Your task to perform on an android device: Search for sushi restaurants on Maps Image 0: 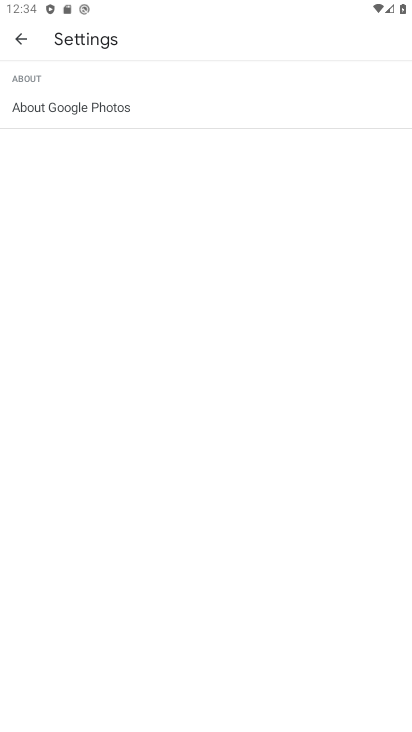
Step 0: click (16, 34)
Your task to perform on an android device: Search for sushi restaurants on Maps Image 1: 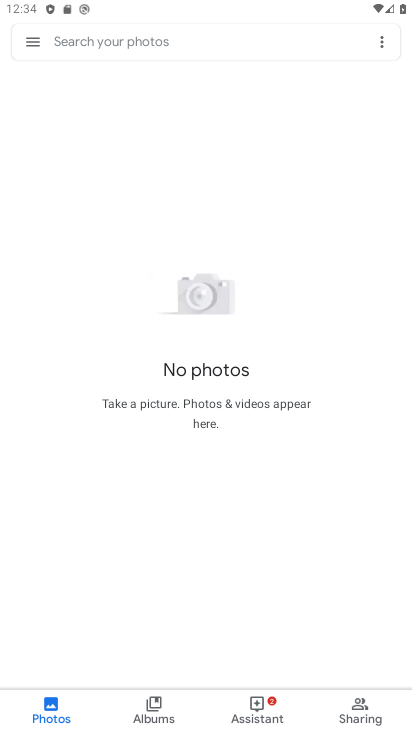
Step 1: press home button
Your task to perform on an android device: Search for sushi restaurants on Maps Image 2: 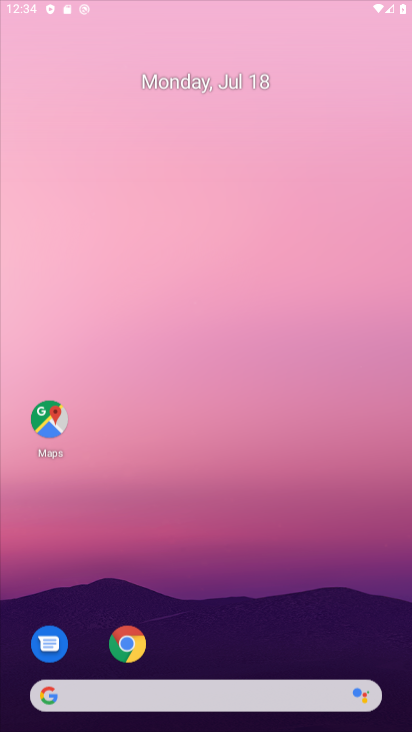
Step 2: drag from (189, 639) to (201, 142)
Your task to perform on an android device: Search for sushi restaurants on Maps Image 3: 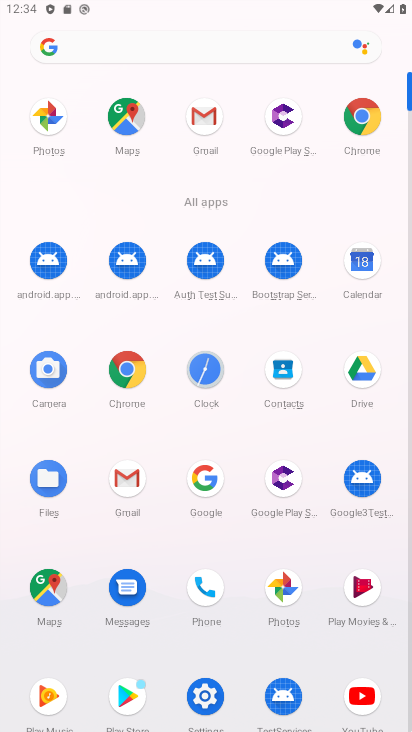
Step 3: click (115, 156)
Your task to perform on an android device: Search for sushi restaurants on Maps Image 4: 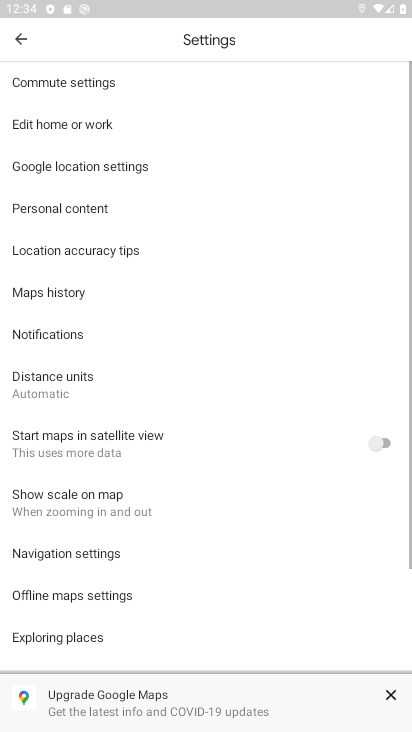
Step 4: click (16, 33)
Your task to perform on an android device: Search for sushi restaurants on Maps Image 5: 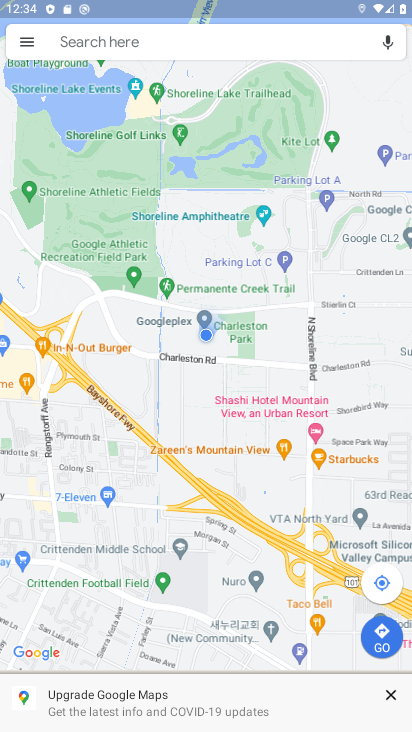
Step 5: click (92, 52)
Your task to perform on an android device: Search for sushi restaurants on Maps Image 6: 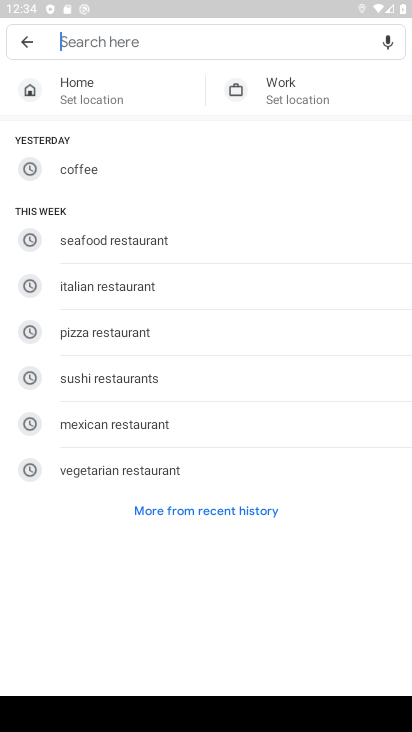
Step 6: type "sushi restaurants"
Your task to perform on an android device: Search for sushi restaurants on Maps Image 7: 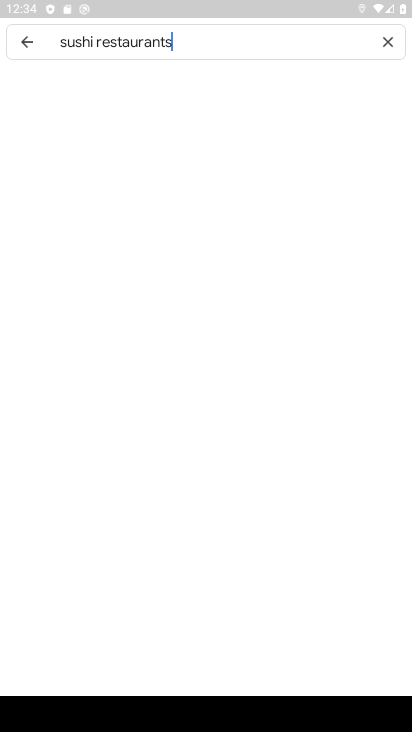
Step 7: type ""
Your task to perform on an android device: Search for sushi restaurants on Maps Image 8: 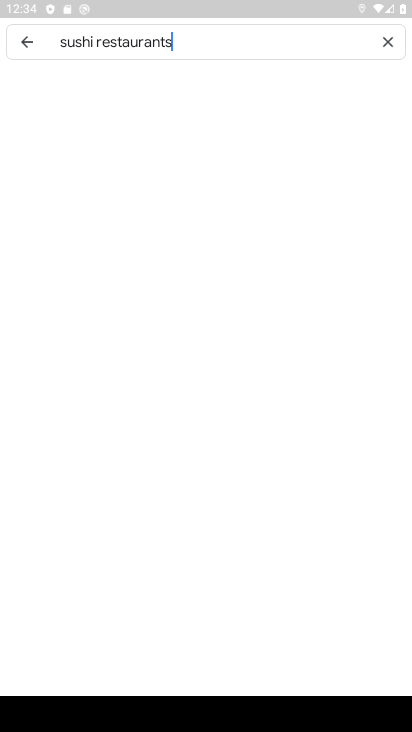
Step 8: click (58, 69)
Your task to perform on an android device: Search for sushi restaurants on Maps Image 9: 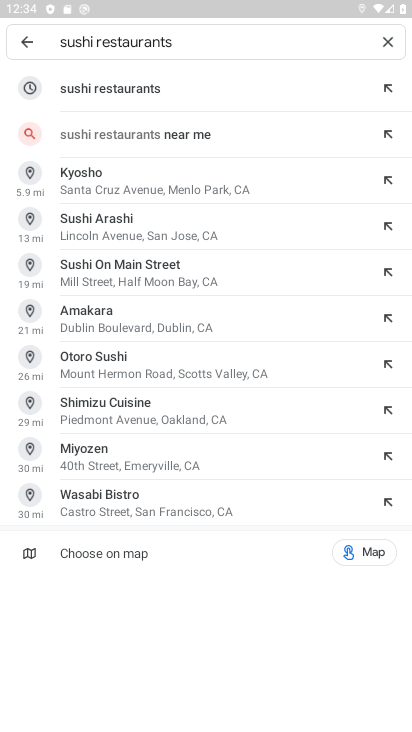
Step 9: click (58, 89)
Your task to perform on an android device: Search for sushi restaurants on Maps Image 10: 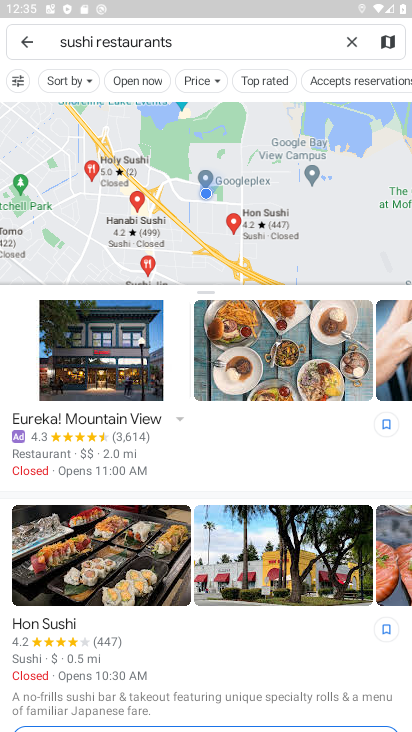
Step 10: task complete